Your task to perform on an android device: toggle javascript in the chrome app Image 0: 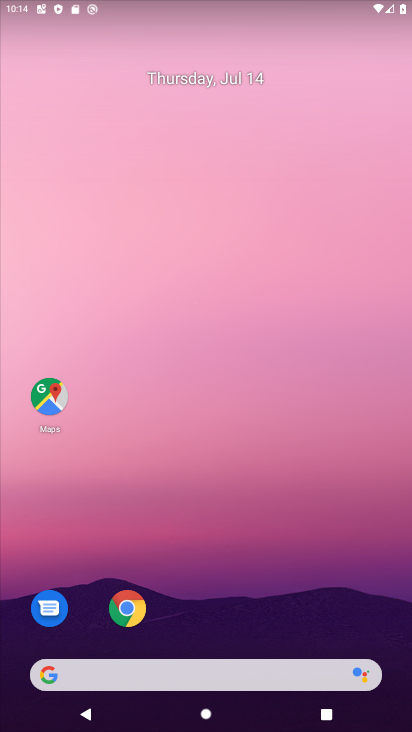
Step 0: click (122, 609)
Your task to perform on an android device: toggle javascript in the chrome app Image 1: 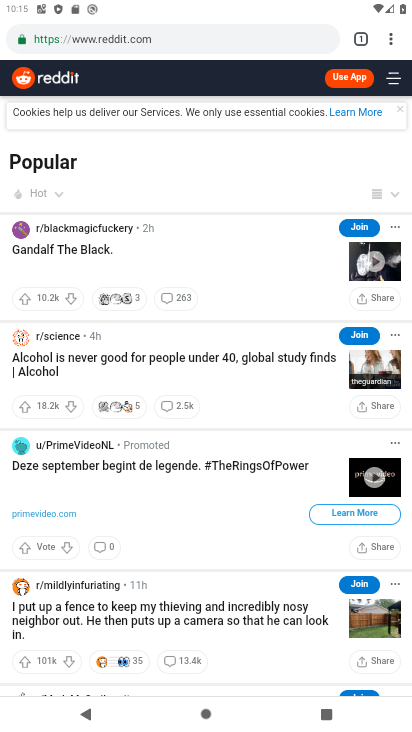
Step 1: click (388, 40)
Your task to perform on an android device: toggle javascript in the chrome app Image 2: 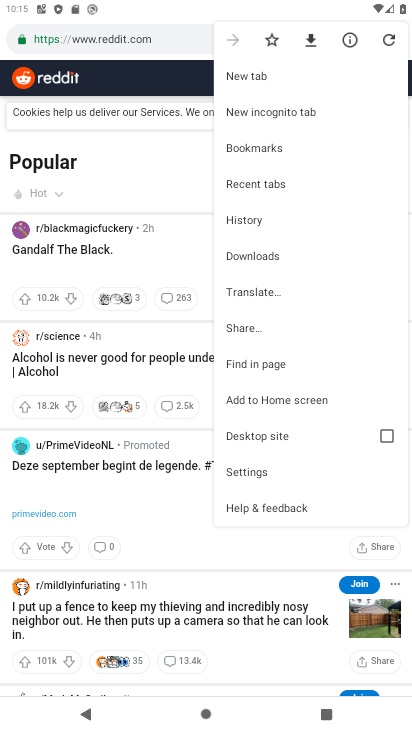
Step 2: click (246, 472)
Your task to perform on an android device: toggle javascript in the chrome app Image 3: 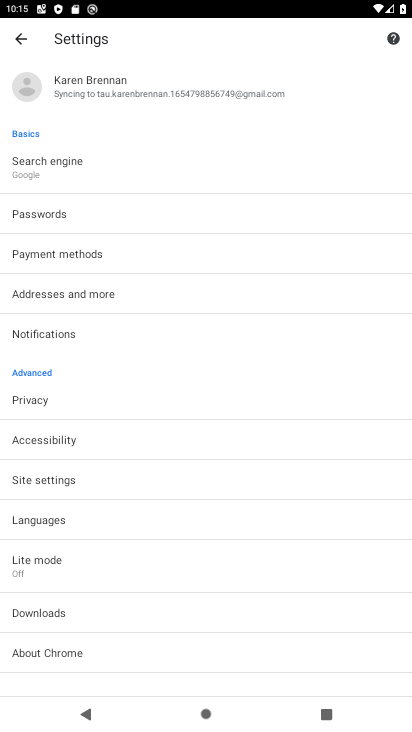
Step 3: click (81, 482)
Your task to perform on an android device: toggle javascript in the chrome app Image 4: 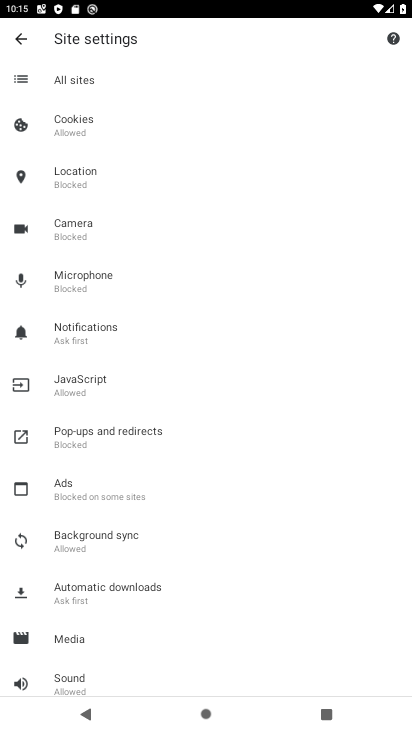
Step 4: click (65, 399)
Your task to perform on an android device: toggle javascript in the chrome app Image 5: 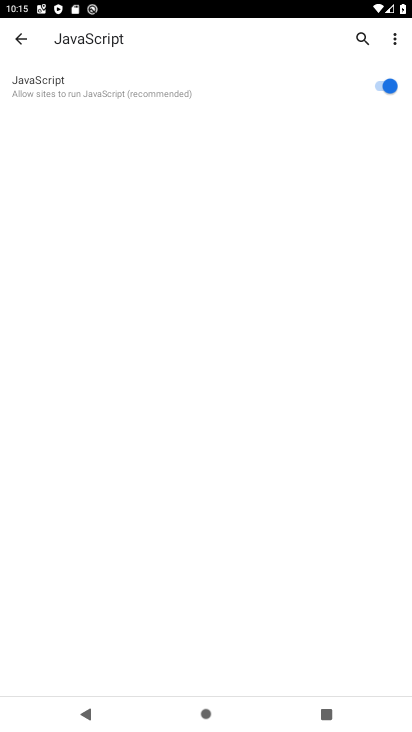
Step 5: click (382, 86)
Your task to perform on an android device: toggle javascript in the chrome app Image 6: 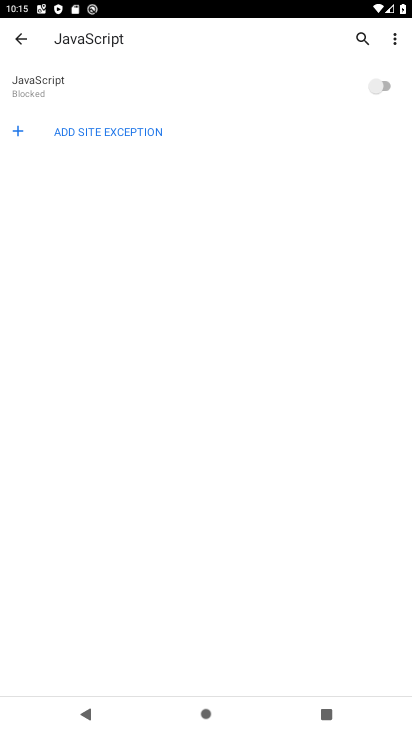
Step 6: task complete